Your task to perform on an android device: How do I get to the nearest Home Depot? Image 0: 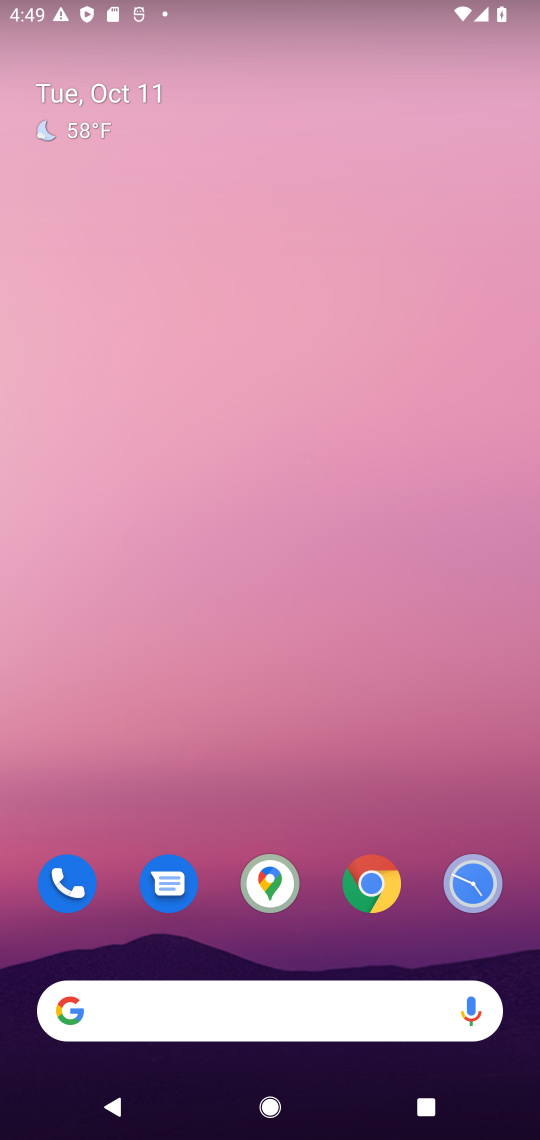
Step 0: drag from (305, 961) to (403, 111)
Your task to perform on an android device: How do I get to the nearest Home Depot? Image 1: 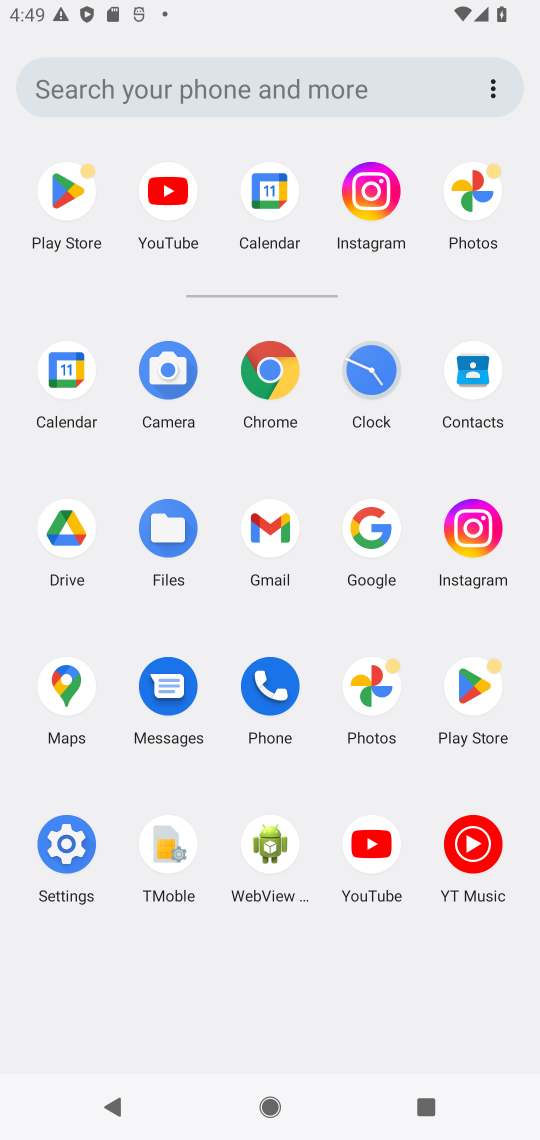
Step 1: click (264, 367)
Your task to perform on an android device: How do I get to the nearest Home Depot? Image 2: 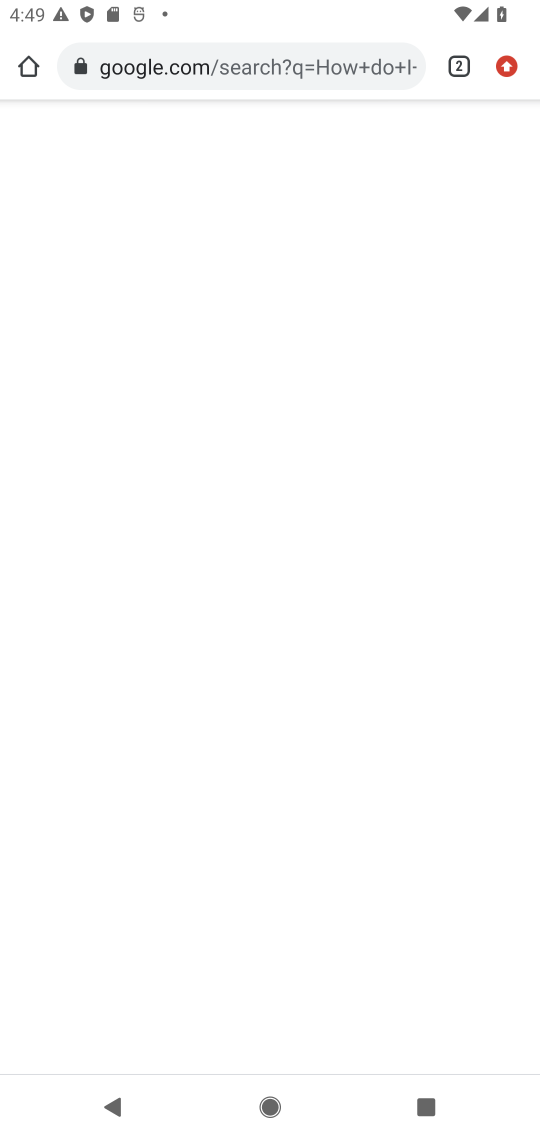
Step 2: click (315, 67)
Your task to perform on an android device: How do I get to the nearest Home Depot? Image 3: 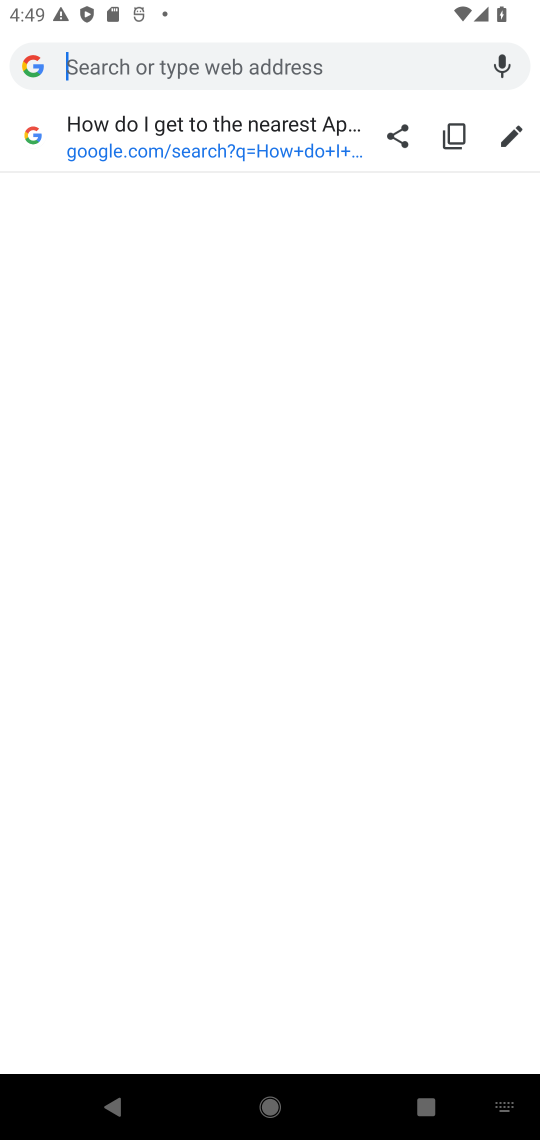
Step 3: type ""
Your task to perform on an android device: How do I get to the nearest Home Depot? Image 4: 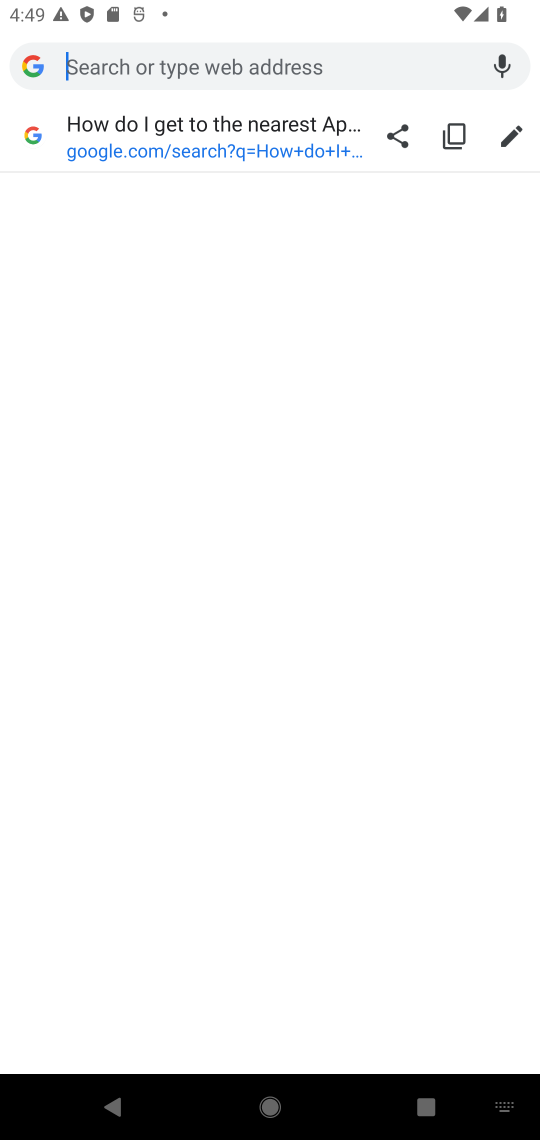
Step 4: type "How do I get to the nearest Home Deopt?"
Your task to perform on an android device: How do I get to the nearest Home Depot? Image 5: 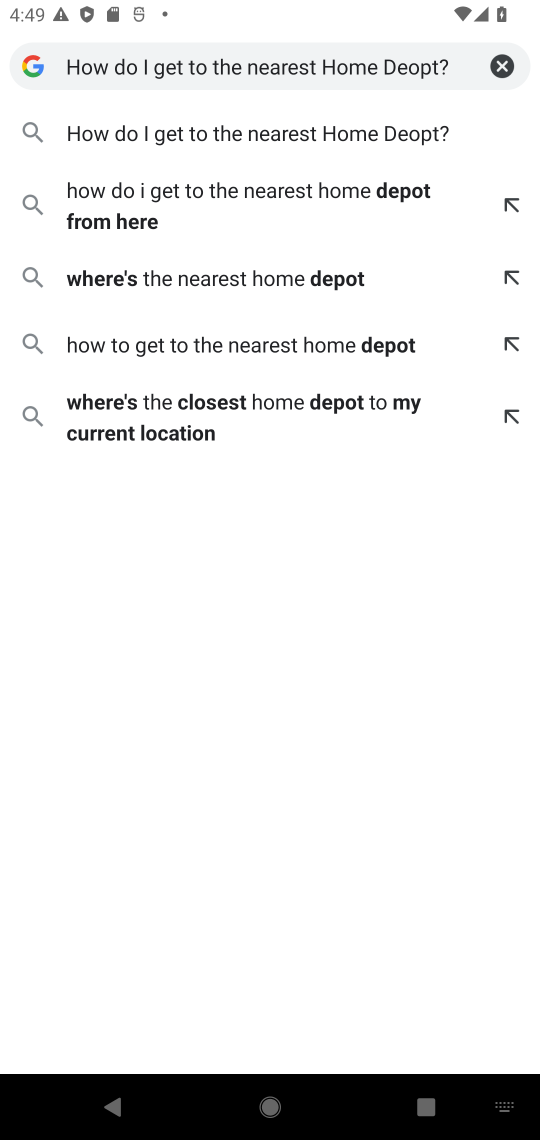
Step 5: press enter
Your task to perform on an android device: How do I get to the nearest Home Depot? Image 6: 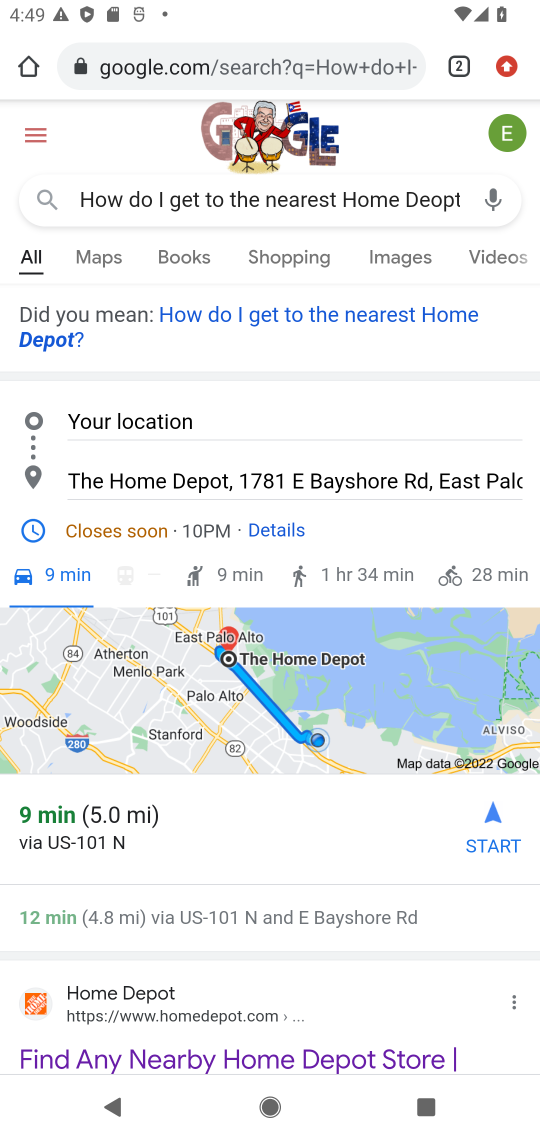
Step 6: task complete